Your task to perform on an android device: check android version Image 0: 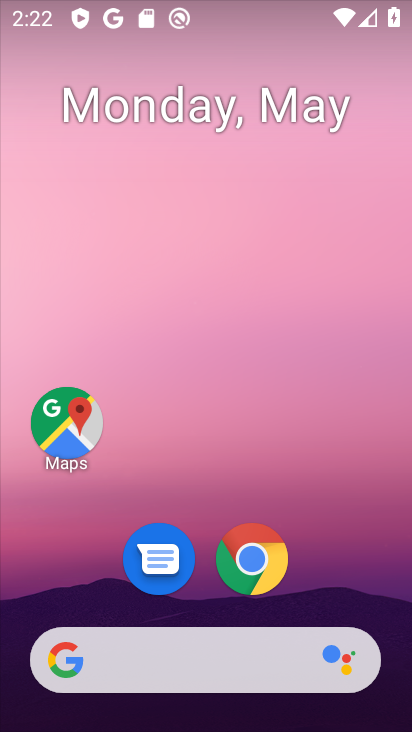
Step 0: drag from (325, 523) to (326, 0)
Your task to perform on an android device: check android version Image 1: 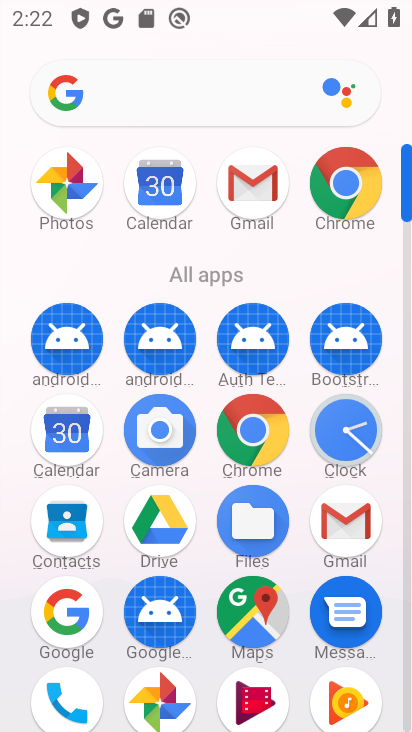
Step 1: drag from (299, 577) to (306, 74)
Your task to perform on an android device: check android version Image 2: 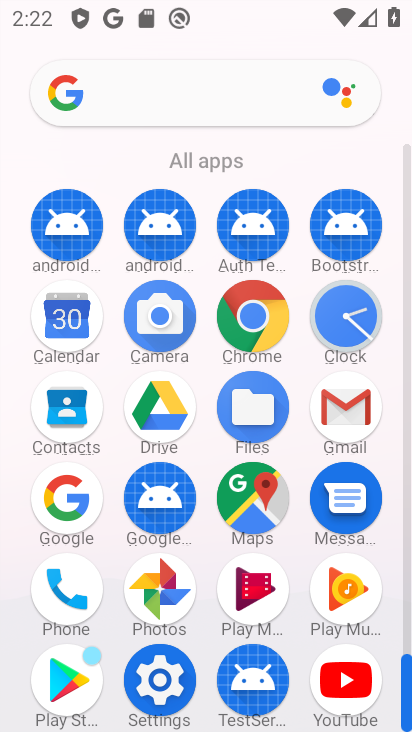
Step 2: click (153, 680)
Your task to perform on an android device: check android version Image 3: 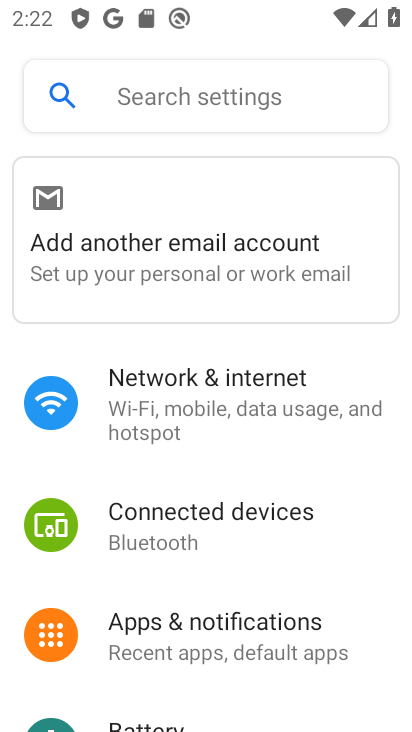
Step 3: drag from (165, 663) to (267, 5)
Your task to perform on an android device: check android version Image 4: 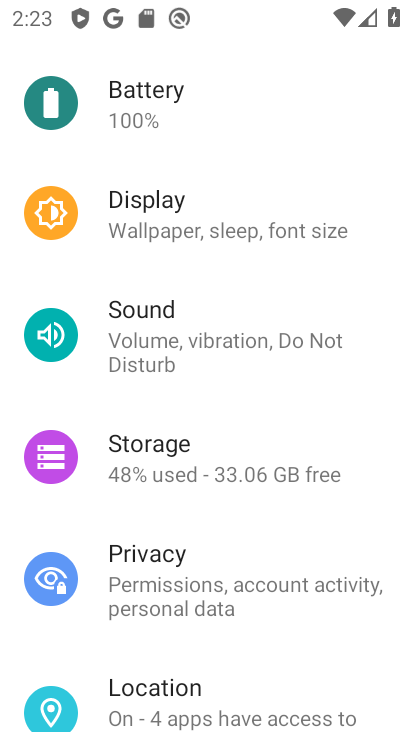
Step 4: drag from (236, 689) to (230, 197)
Your task to perform on an android device: check android version Image 5: 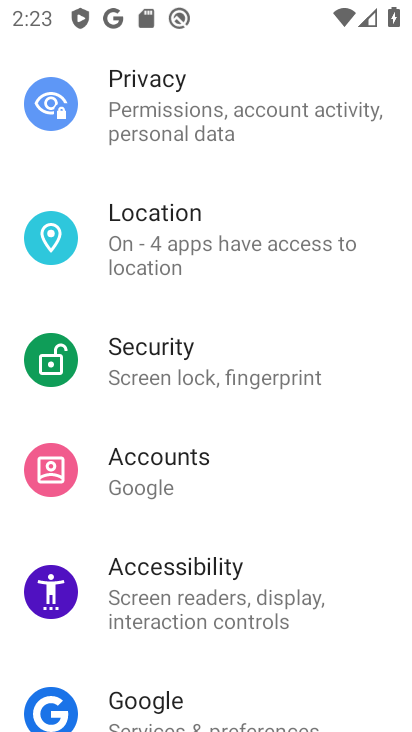
Step 5: drag from (146, 650) to (167, 234)
Your task to perform on an android device: check android version Image 6: 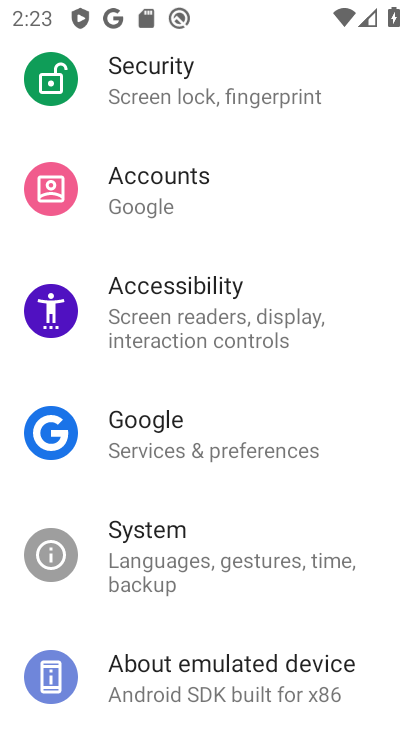
Step 6: drag from (199, 680) to (187, 400)
Your task to perform on an android device: check android version Image 7: 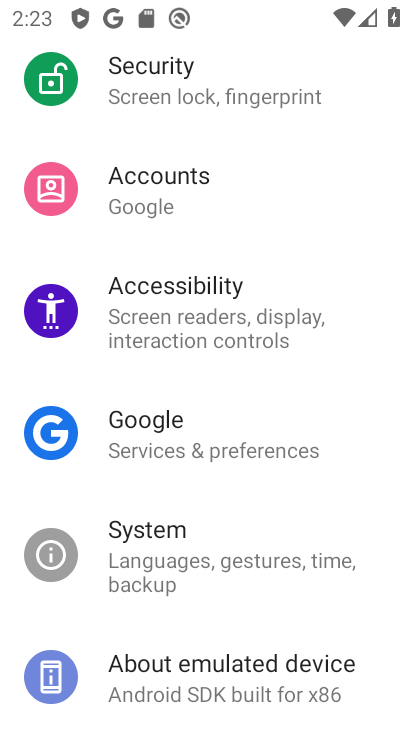
Step 7: click (193, 675)
Your task to perform on an android device: check android version Image 8: 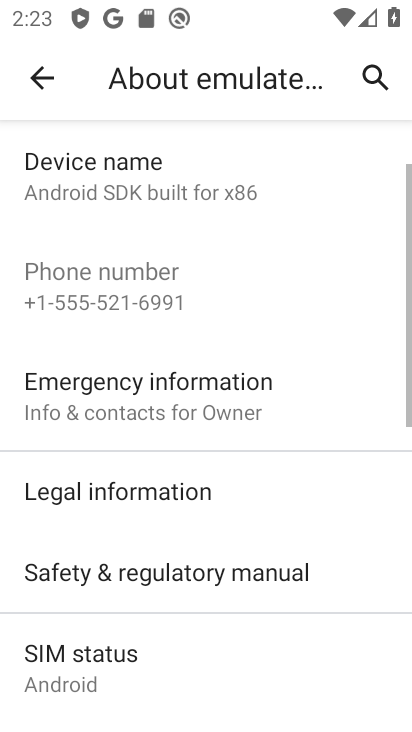
Step 8: drag from (180, 680) to (237, 199)
Your task to perform on an android device: check android version Image 9: 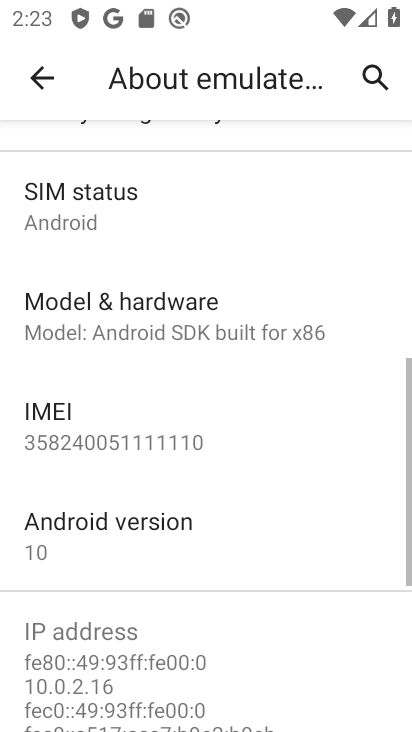
Step 9: click (89, 528)
Your task to perform on an android device: check android version Image 10: 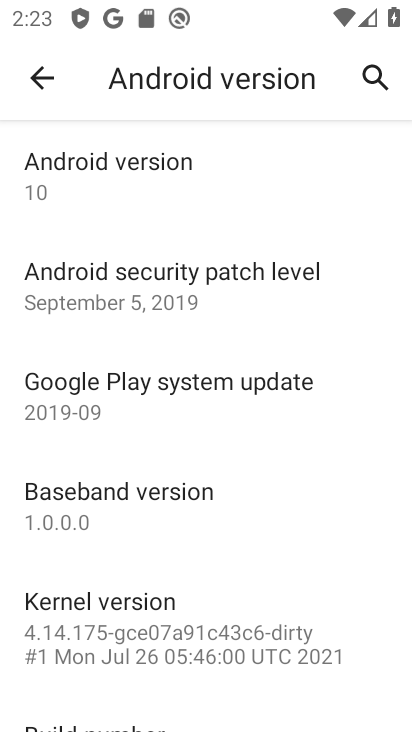
Step 10: click (165, 161)
Your task to perform on an android device: check android version Image 11: 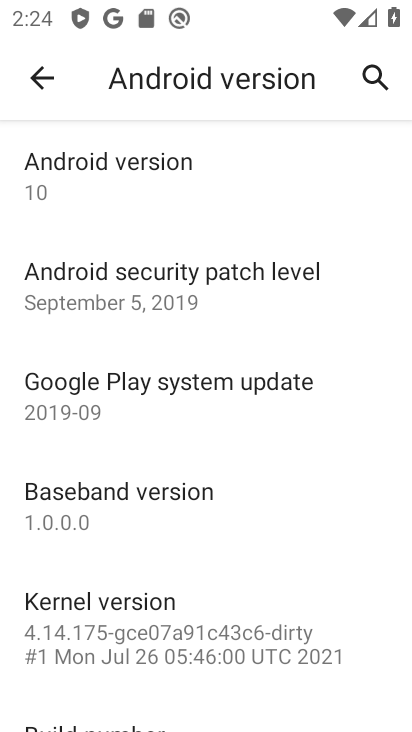
Step 11: task complete